Your task to perform on an android device: What is the speed of a tiger? Image 0: 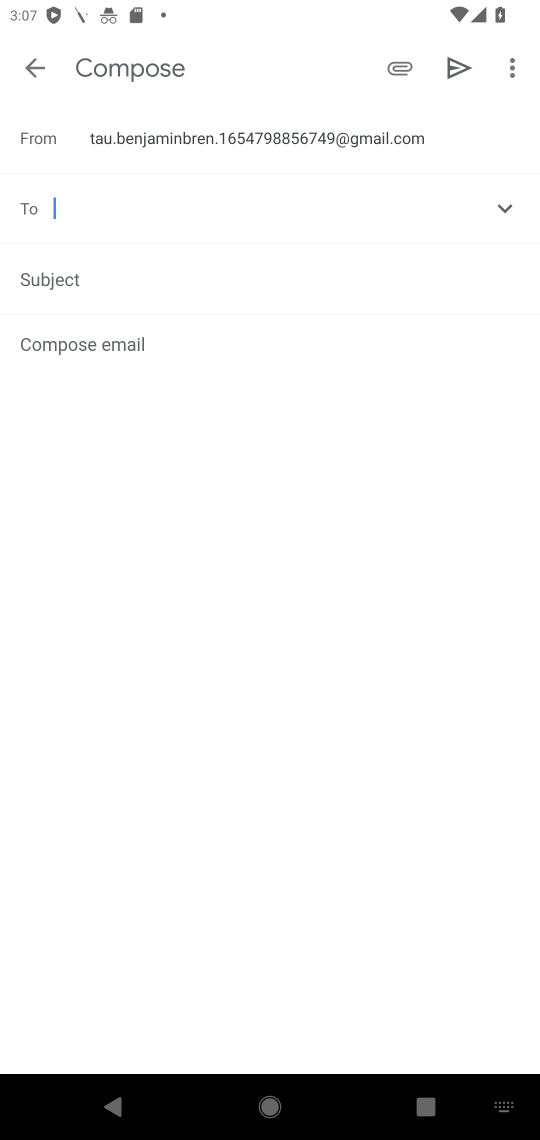
Step 0: press home button
Your task to perform on an android device: What is the speed of a tiger? Image 1: 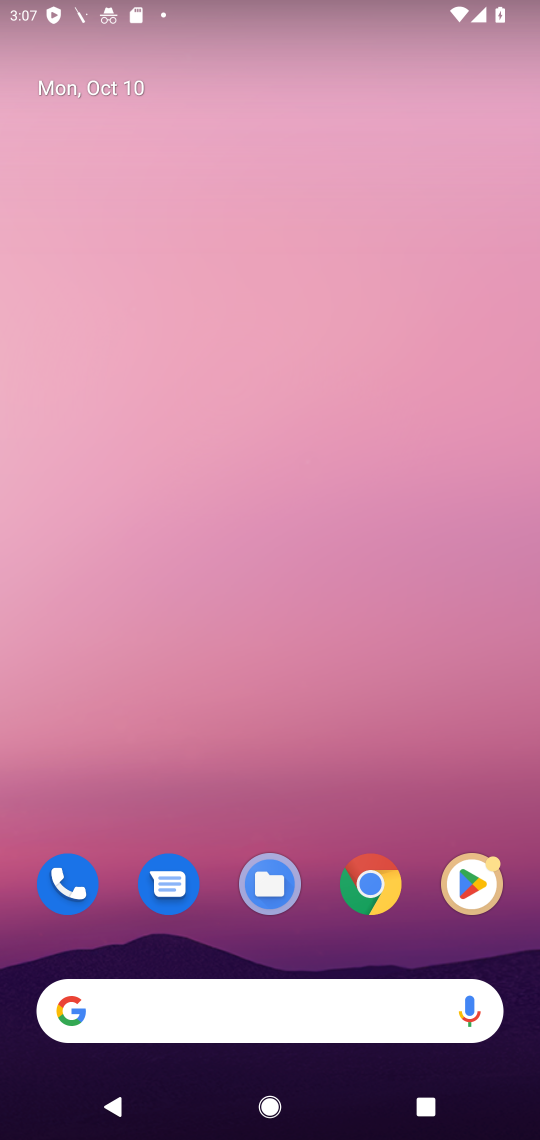
Step 1: click (333, 1002)
Your task to perform on an android device: What is the speed of a tiger? Image 2: 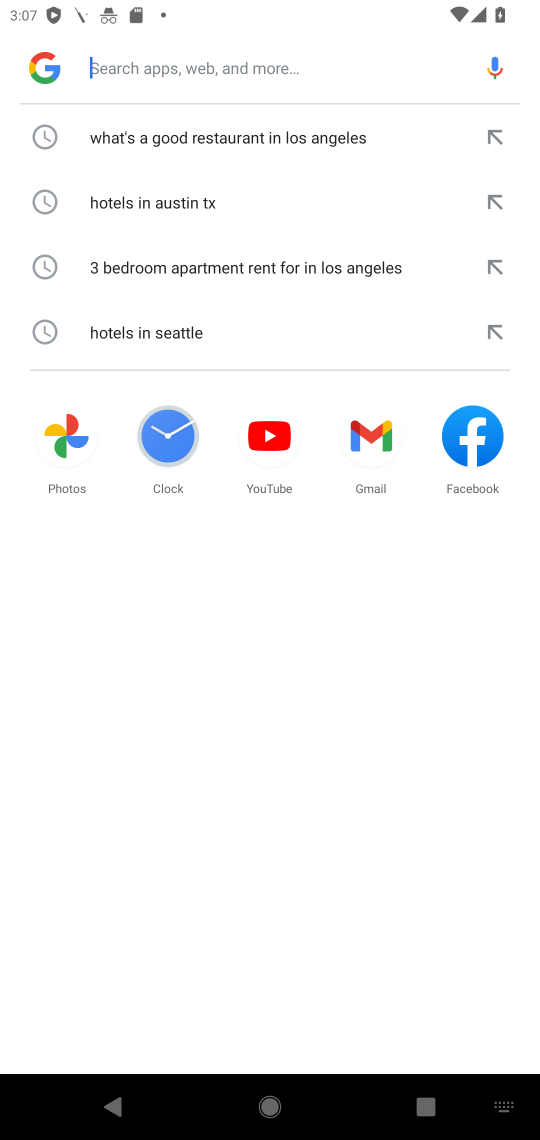
Step 2: type "What is the speed of a tiger?"
Your task to perform on an android device: What is the speed of a tiger? Image 3: 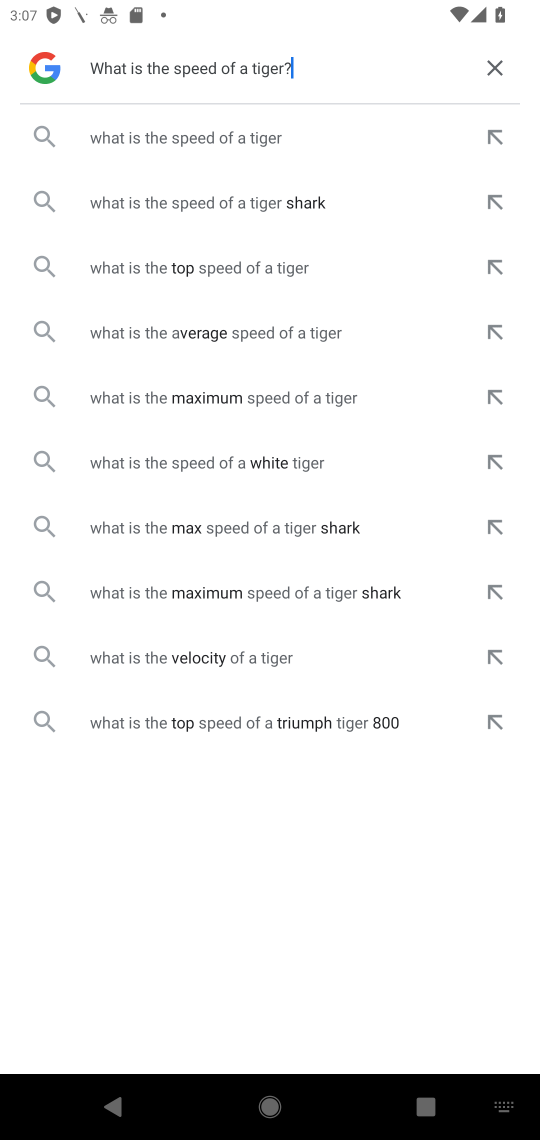
Step 3: click (201, 135)
Your task to perform on an android device: What is the speed of a tiger? Image 4: 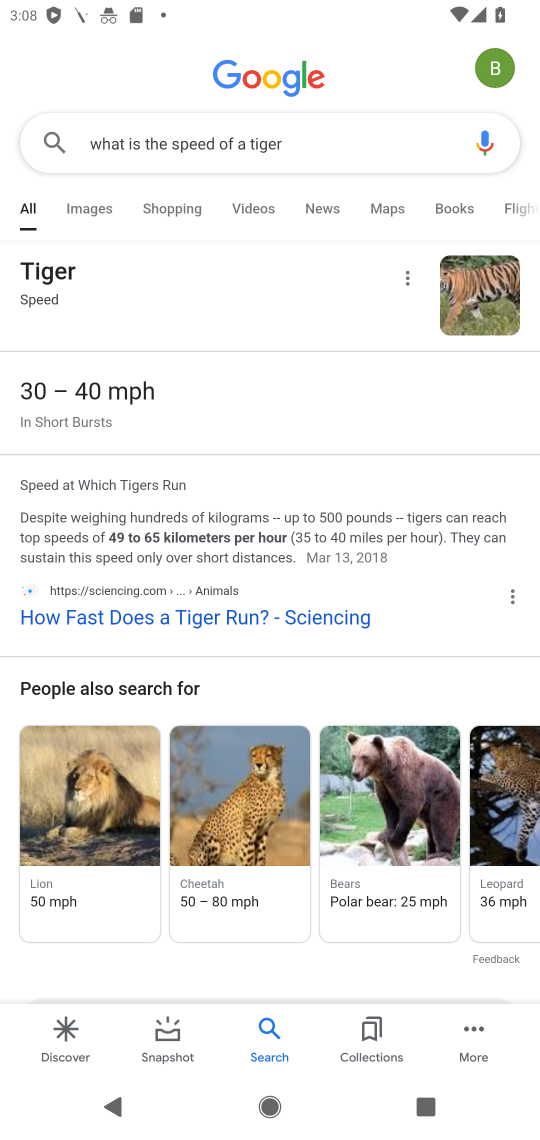
Step 4: task complete